Your task to perform on an android device: Open Google Maps Image 0: 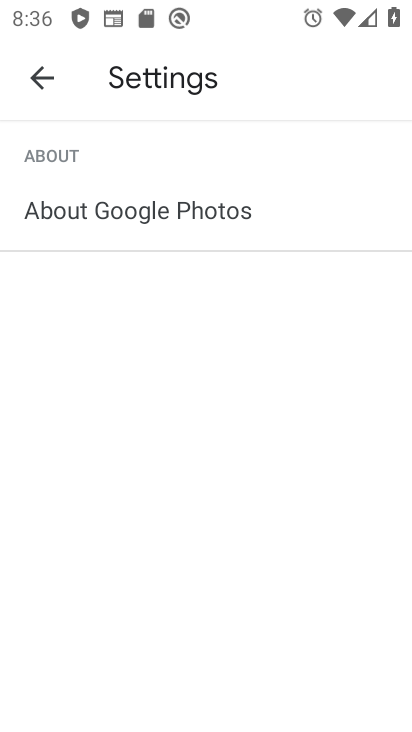
Step 0: press home button
Your task to perform on an android device: Open Google Maps Image 1: 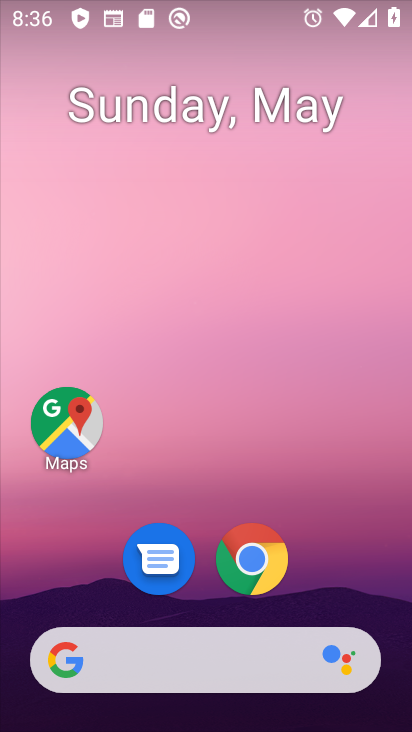
Step 1: click (65, 417)
Your task to perform on an android device: Open Google Maps Image 2: 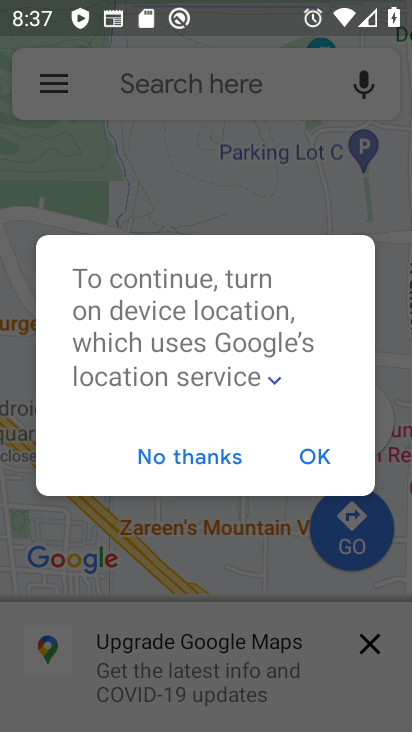
Step 2: click (185, 461)
Your task to perform on an android device: Open Google Maps Image 3: 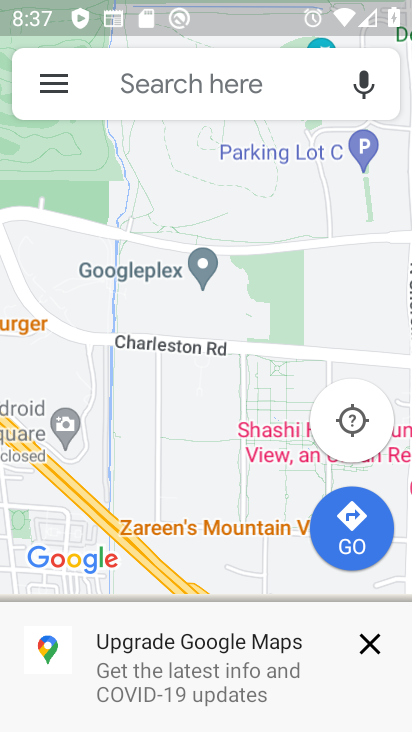
Step 3: task complete